Your task to perform on an android device: Open privacy settings Image 0: 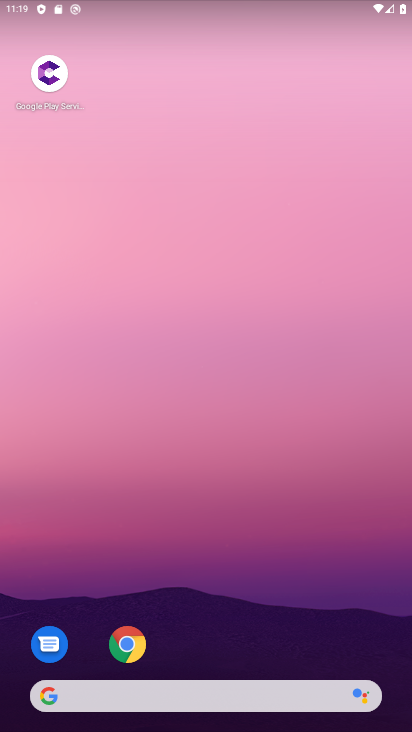
Step 0: drag from (239, 647) to (240, 129)
Your task to perform on an android device: Open privacy settings Image 1: 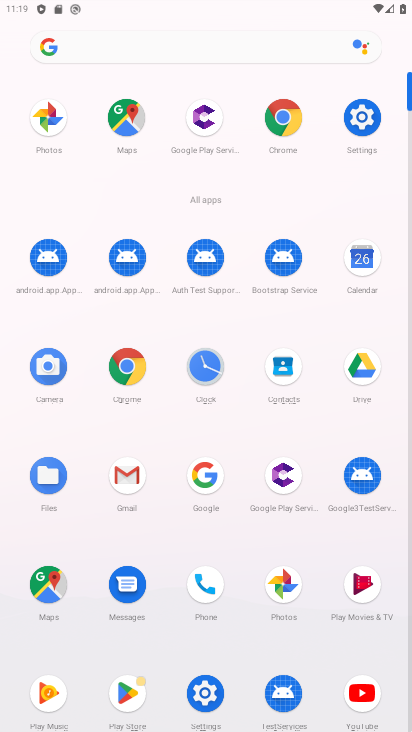
Step 1: click (369, 124)
Your task to perform on an android device: Open privacy settings Image 2: 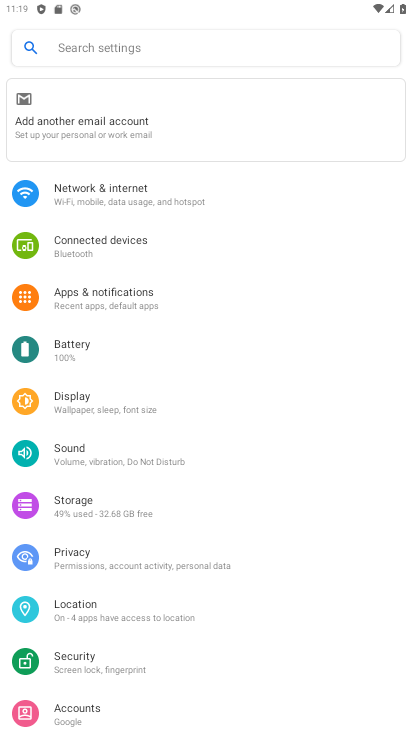
Step 2: click (123, 558)
Your task to perform on an android device: Open privacy settings Image 3: 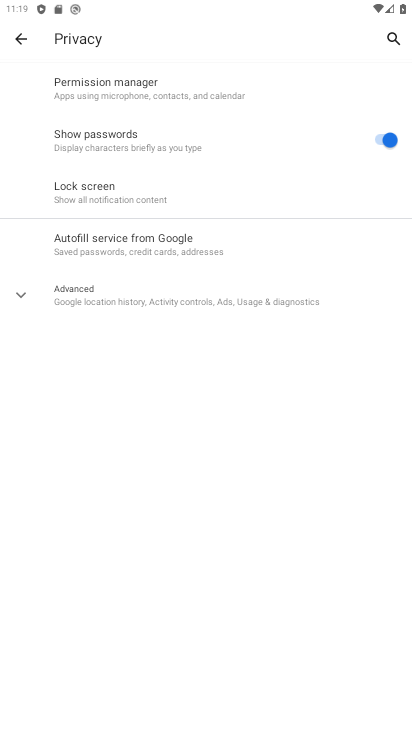
Step 3: task complete